Your task to perform on an android device: Go to Wikipedia Image 0: 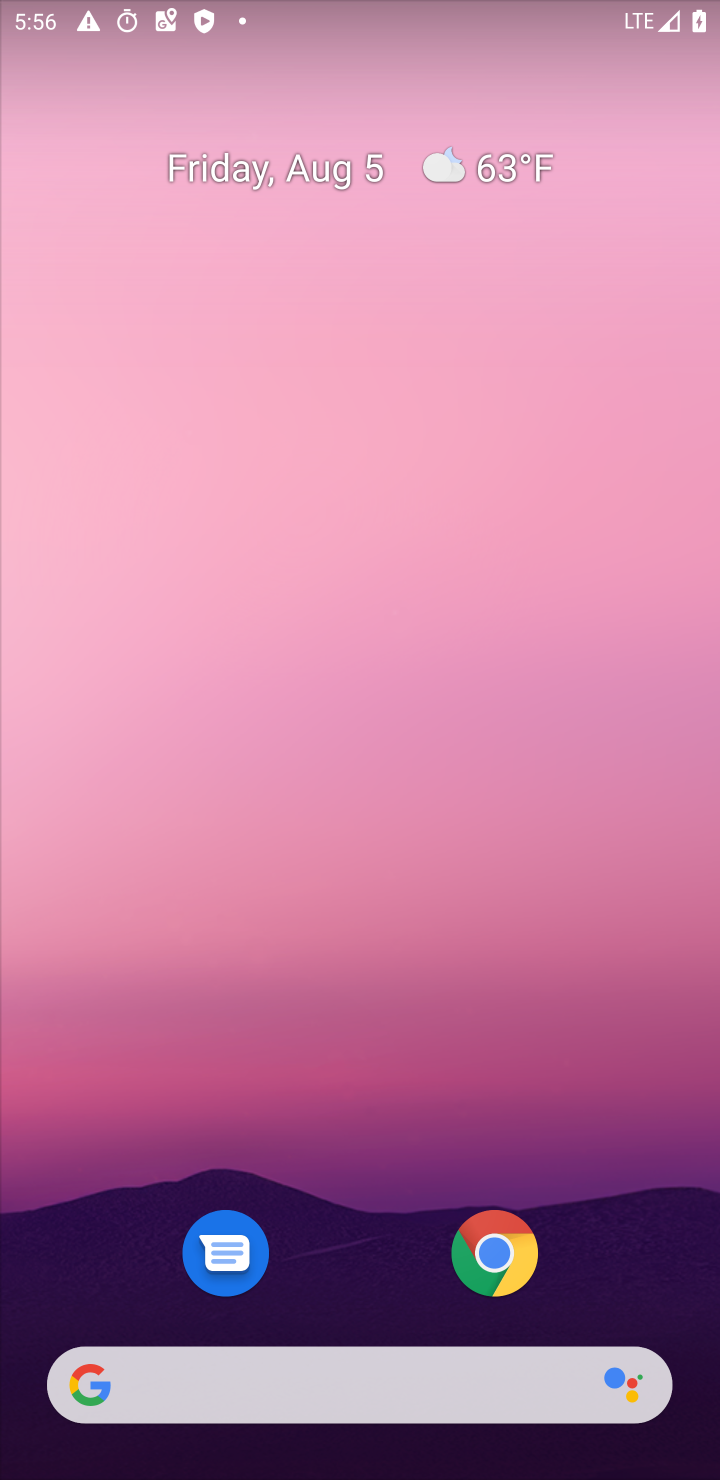
Step 0: click (488, 1270)
Your task to perform on an android device: Go to Wikipedia Image 1: 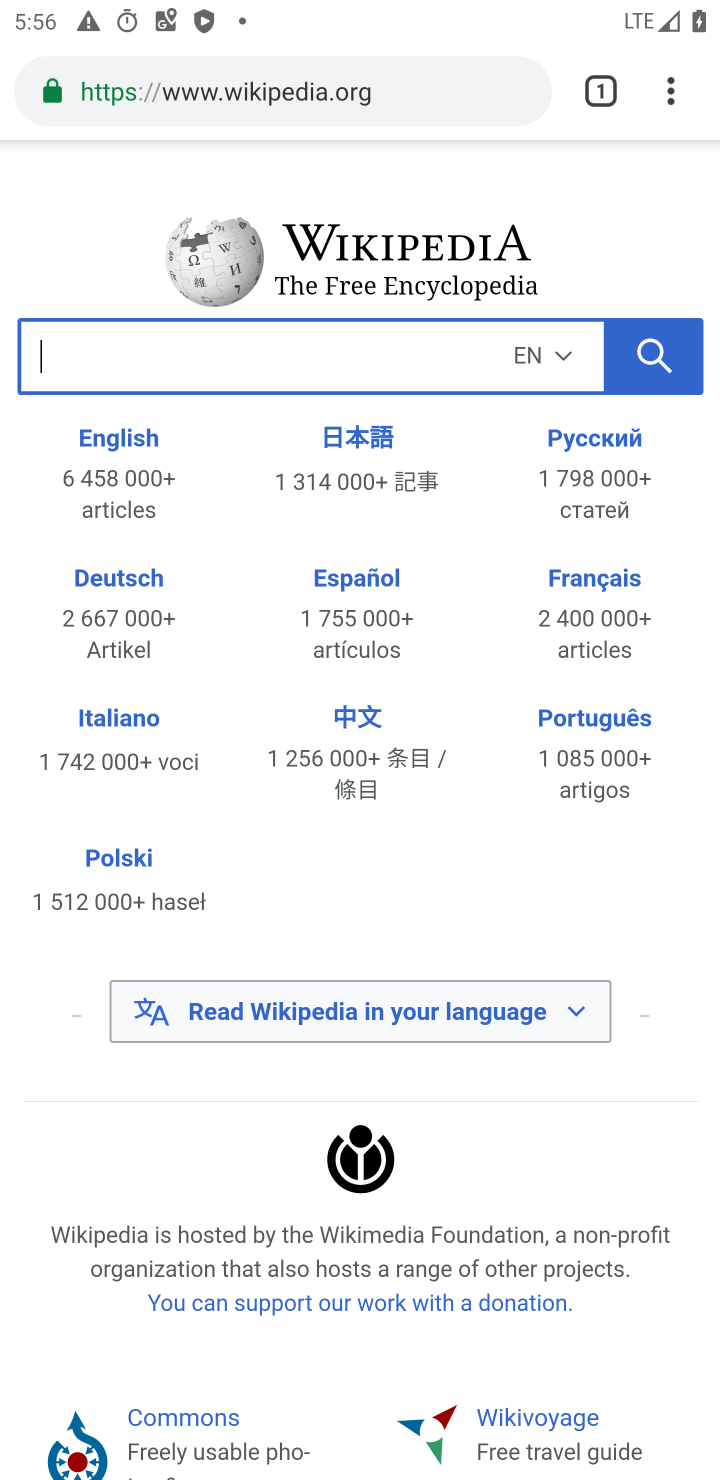
Step 1: task complete